Your task to perform on an android device: find photos in the google photos app Image 0: 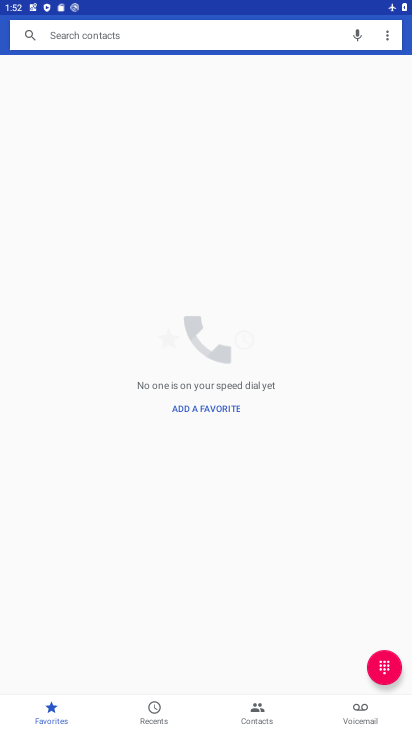
Step 0: press home button
Your task to perform on an android device: find photos in the google photos app Image 1: 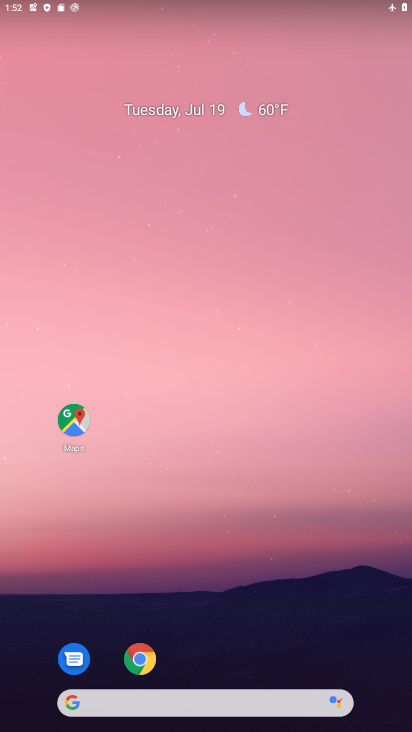
Step 1: drag from (241, 657) to (400, 390)
Your task to perform on an android device: find photos in the google photos app Image 2: 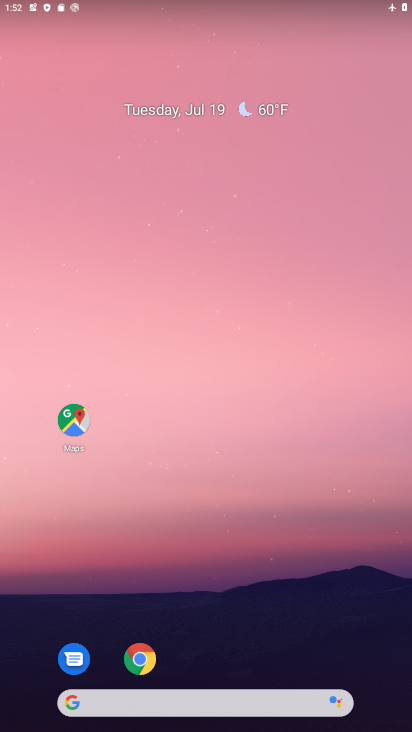
Step 2: drag from (325, 674) to (267, 146)
Your task to perform on an android device: find photos in the google photos app Image 3: 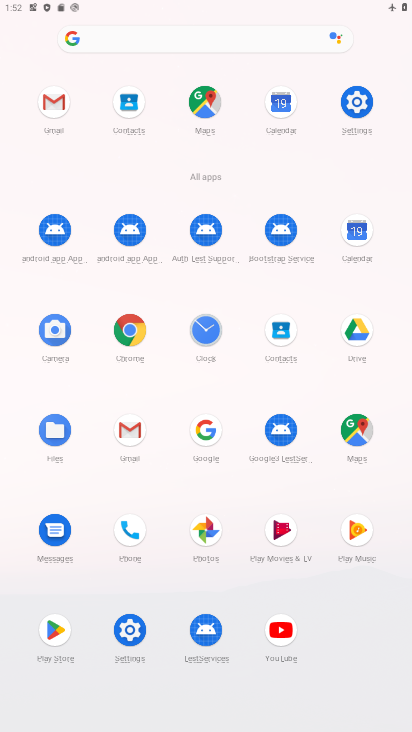
Step 3: click (201, 526)
Your task to perform on an android device: find photos in the google photos app Image 4: 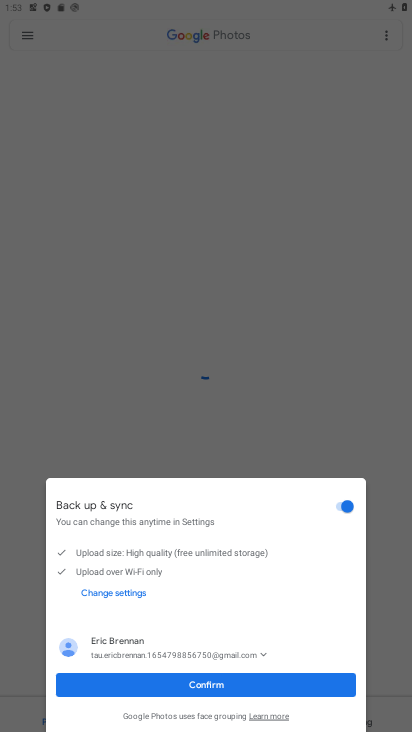
Step 4: click (222, 685)
Your task to perform on an android device: find photos in the google photos app Image 5: 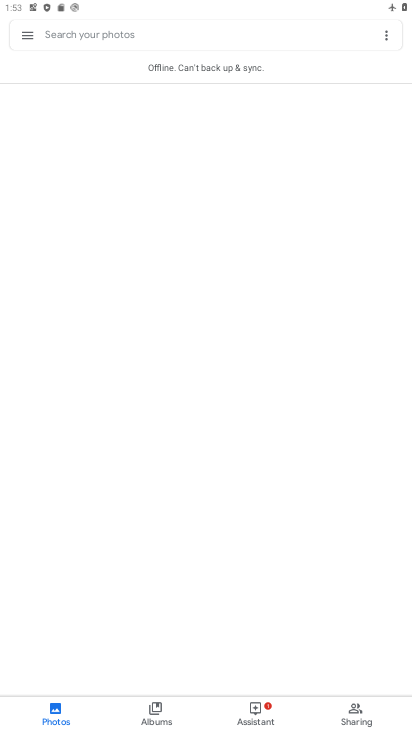
Step 5: task complete